Your task to perform on an android device: toggle improve location accuracy Image 0: 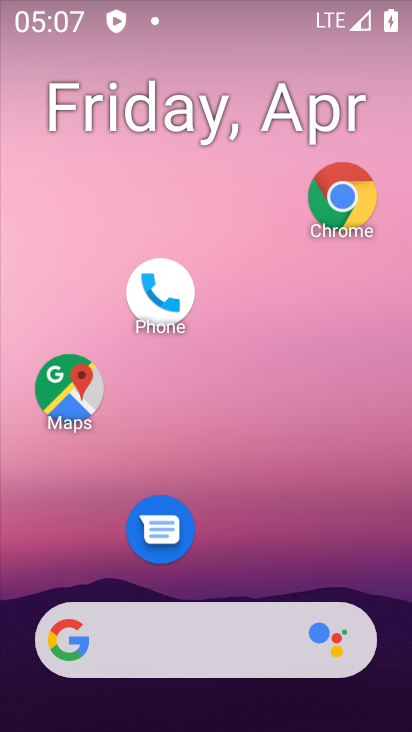
Step 0: drag from (224, 568) to (257, 15)
Your task to perform on an android device: toggle improve location accuracy Image 1: 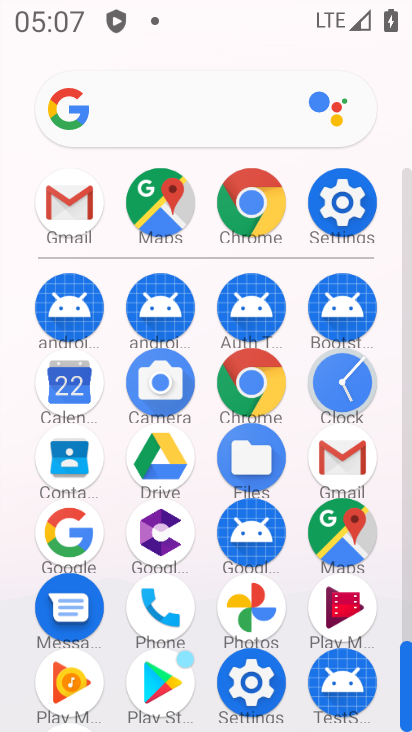
Step 1: click (252, 680)
Your task to perform on an android device: toggle improve location accuracy Image 2: 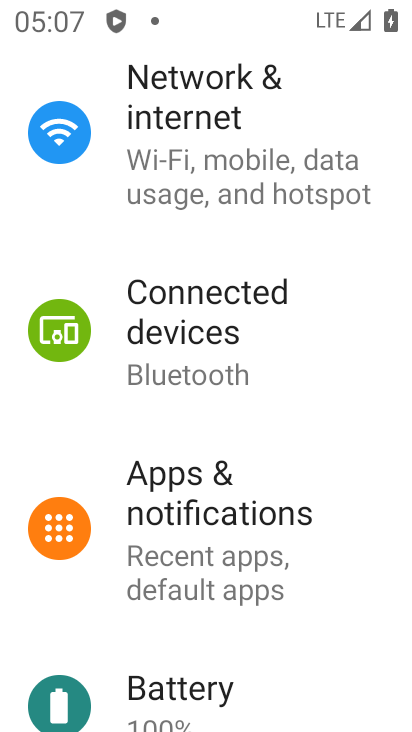
Step 2: drag from (256, 685) to (291, 187)
Your task to perform on an android device: toggle improve location accuracy Image 3: 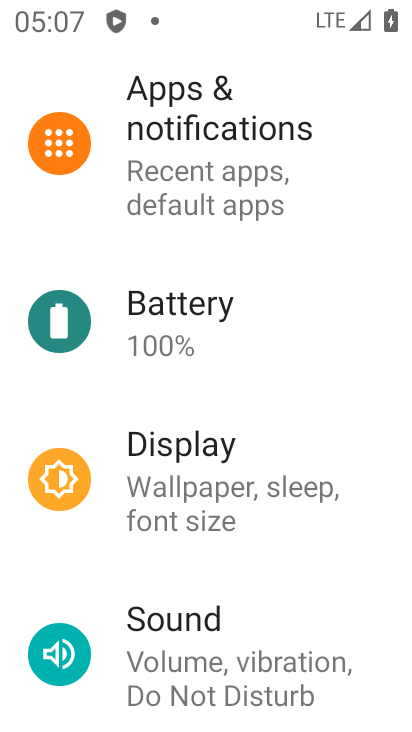
Step 3: drag from (243, 648) to (289, 125)
Your task to perform on an android device: toggle improve location accuracy Image 4: 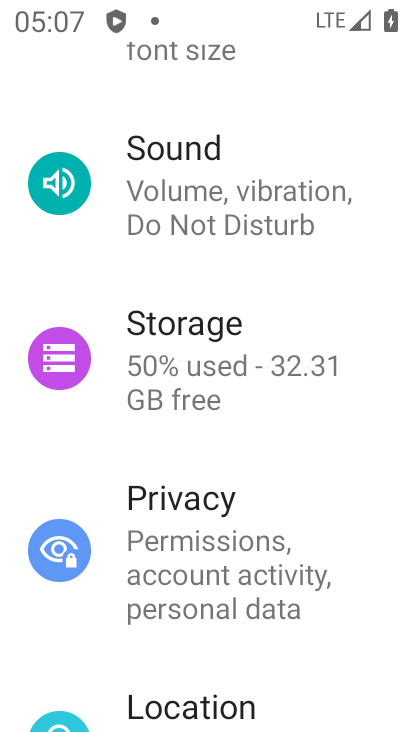
Step 4: click (265, 704)
Your task to perform on an android device: toggle improve location accuracy Image 5: 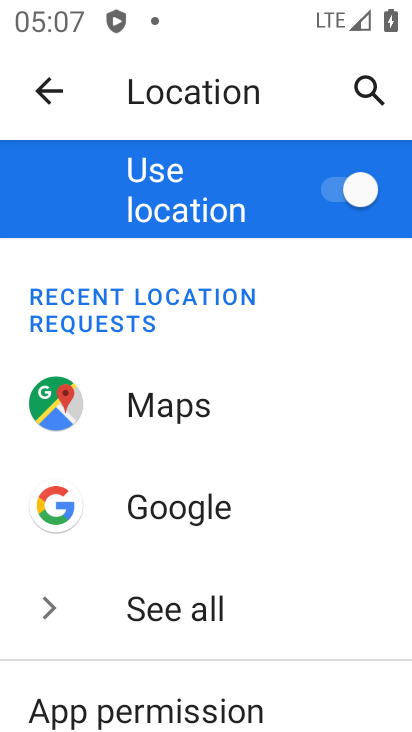
Step 5: drag from (277, 705) to (319, 219)
Your task to perform on an android device: toggle improve location accuracy Image 6: 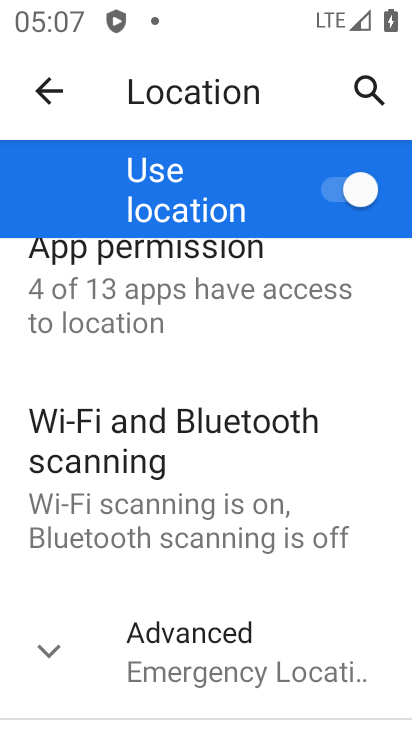
Step 6: click (49, 638)
Your task to perform on an android device: toggle improve location accuracy Image 7: 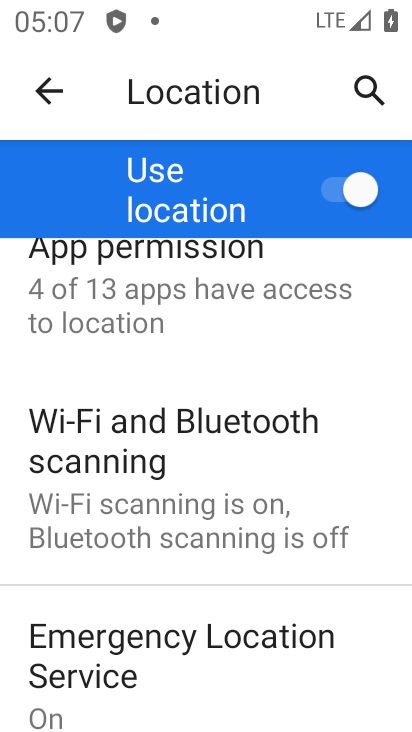
Step 7: drag from (218, 678) to (285, 152)
Your task to perform on an android device: toggle improve location accuracy Image 8: 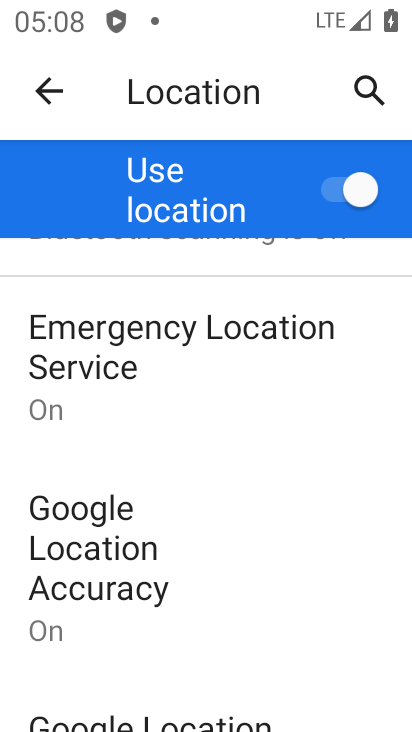
Step 8: click (91, 611)
Your task to perform on an android device: toggle improve location accuracy Image 9: 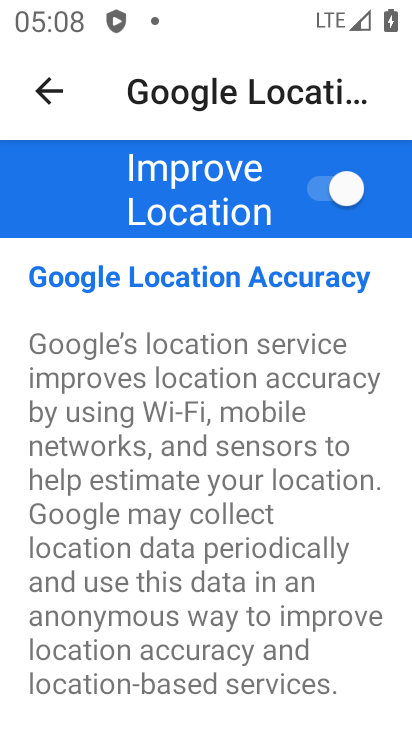
Step 9: click (326, 185)
Your task to perform on an android device: toggle improve location accuracy Image 10: 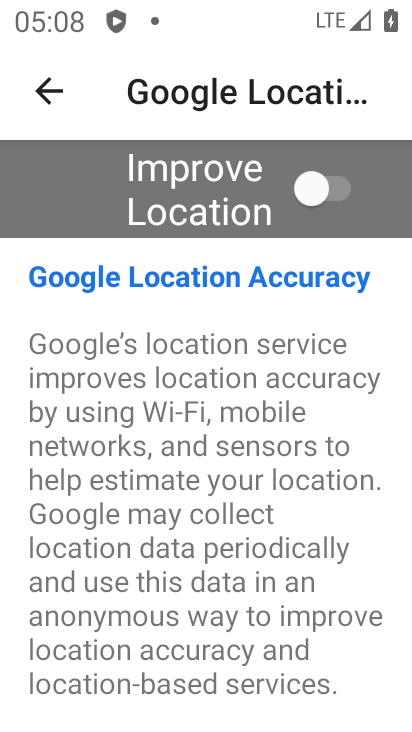
Step 10: task complete